Your task to perform on an android device: Open Yahoo.com Image 0: 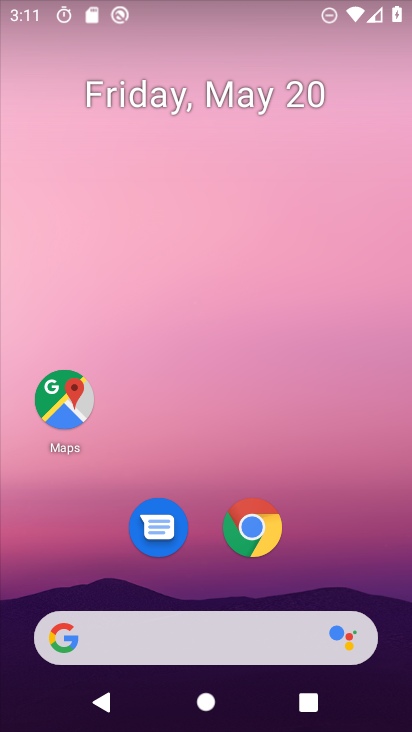
Step 0: click (237, 531)
Your task to perform on an android device: Open Yahoo.com Image 1: 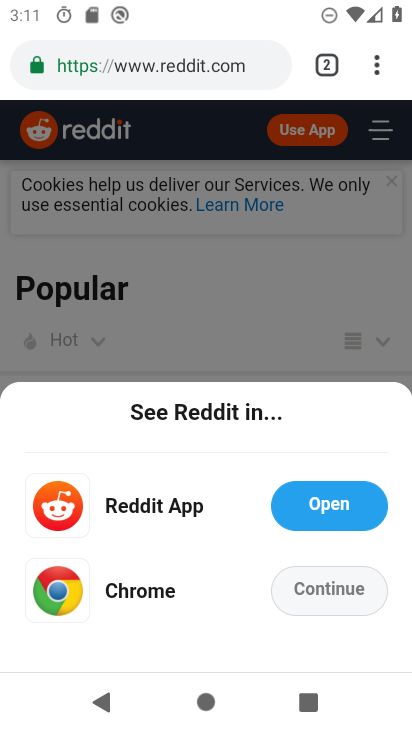
Step 1: click (331, 58)
Your task to perform on an android device: Open Yahoo.com Image 2: 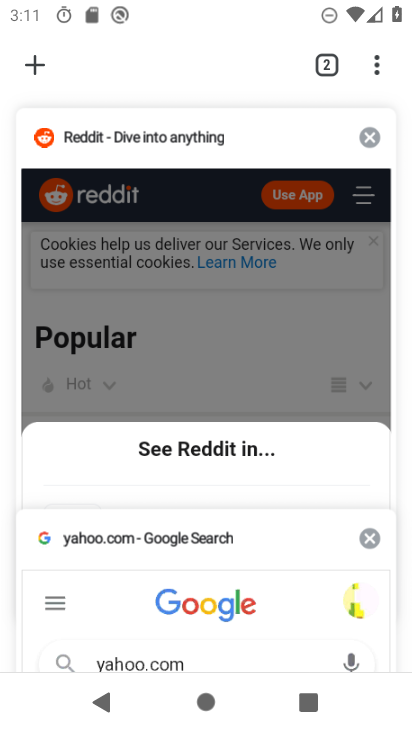
Step 2: click (30, 61)
Your task to perform on an android device: Open Yahoo.com Image 3: 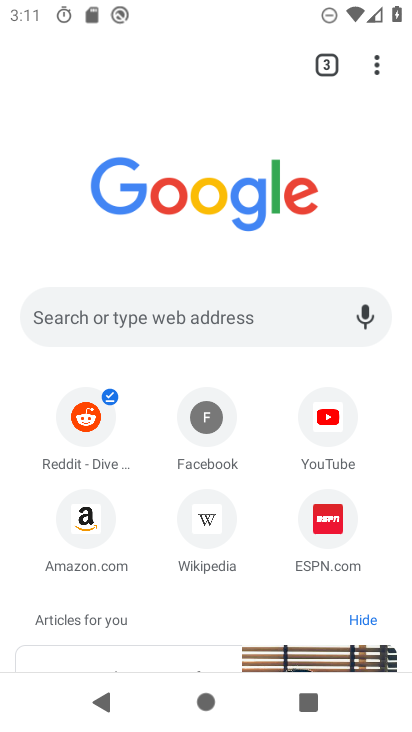
Step 3: click (201, 320)
Your task to perform on an android device: Open Yahoo.com Image 4: 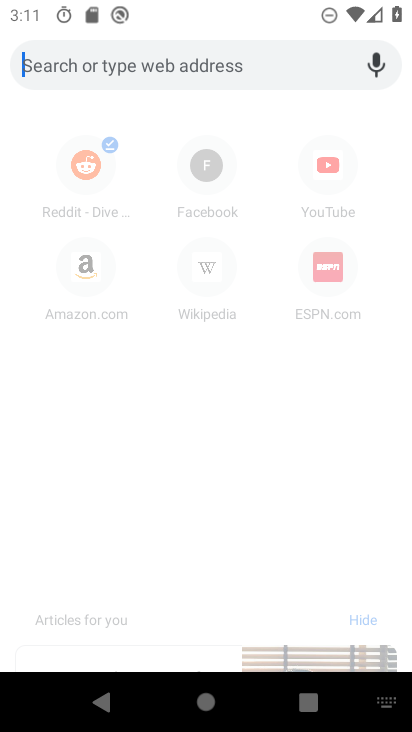
Step 4: type "yahoo.com"
Your task to perform on an android device: Open Yahoo.com Image 5: 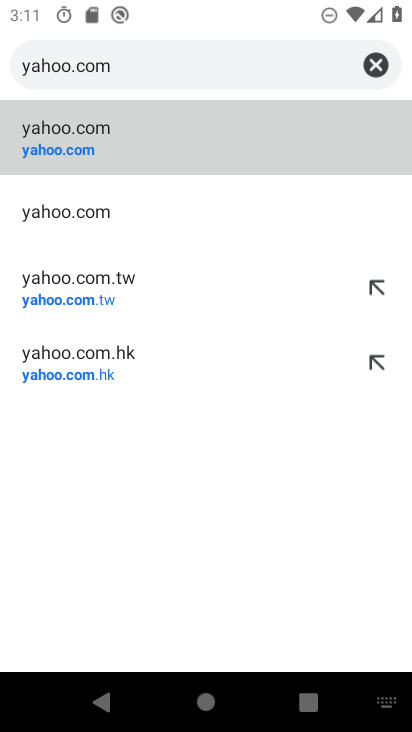
Step 5: click (100, 144)
Your task to perform on an android device: Open Yahoo.com Image 6: 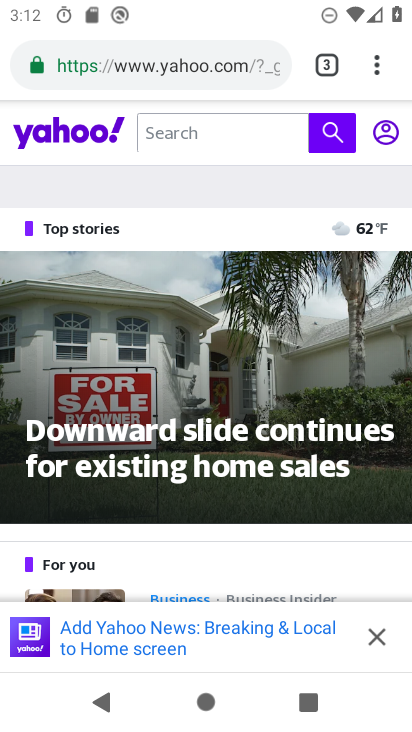
Step 6: task complete